Your task to perform on an android device: Is it going to rain today? Image 0: 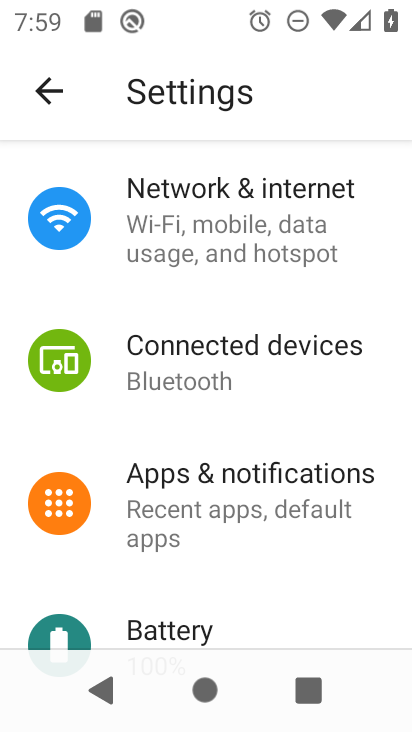
Step 0: press home button
Your task to perform on an android device: Is it going to rain today? Image 1: 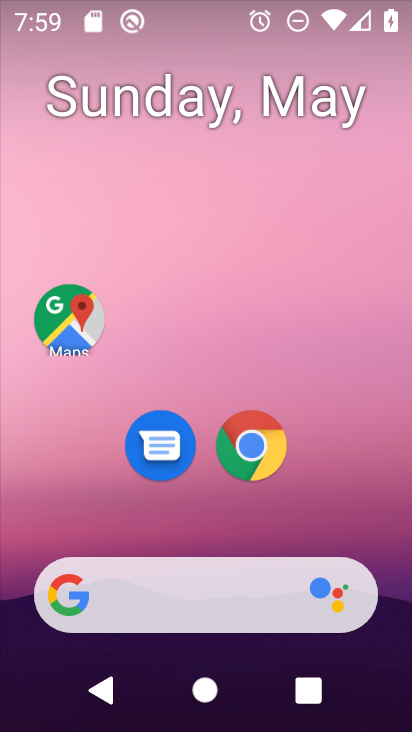
Step 1: drag from (244, 436) to (294, 138)
Your task to perform on an android device: Is it going to rain today? Image 2: 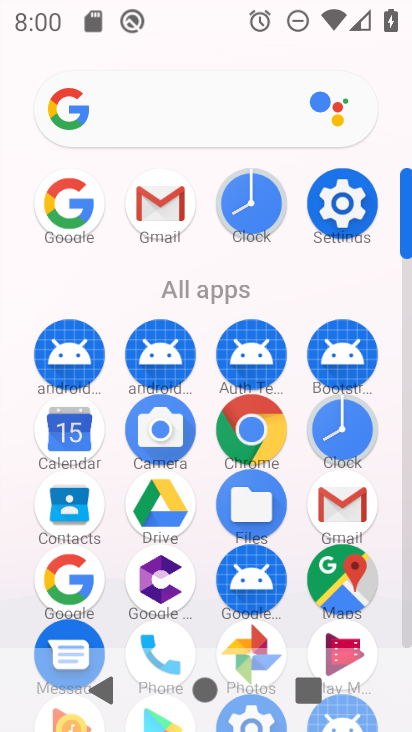
Step 2: click (80, 598)
Your task to perform on an android device: Is it going to rain today? Image 3: 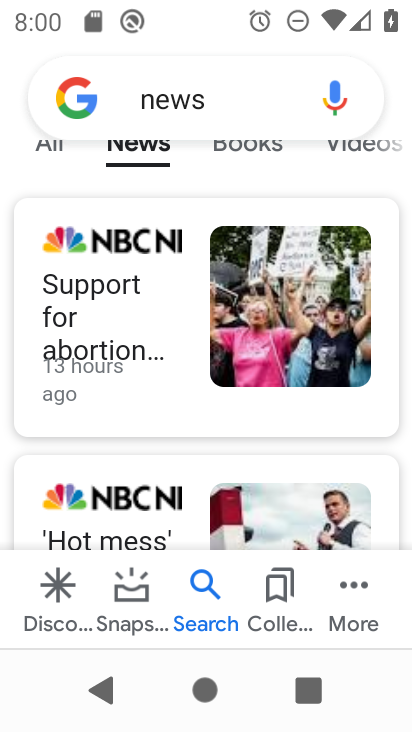
Step 3: click (265, 107)
Your task to perform on an android device: Is it going to rain today? Image 4: 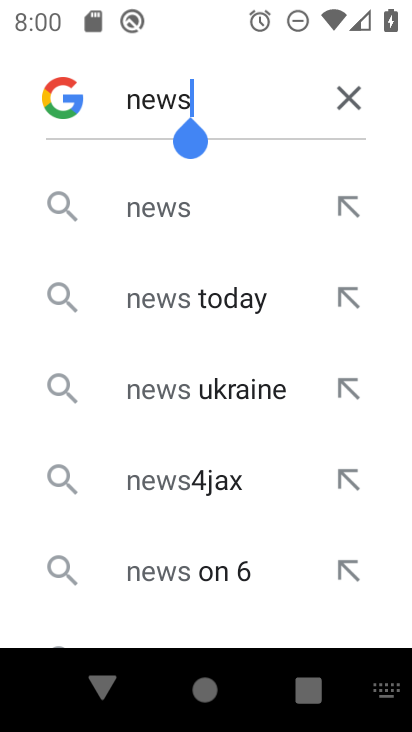
Step 4: click (351, 107)
Your task to perform on an android device: Is it going to rain today? Image 5: 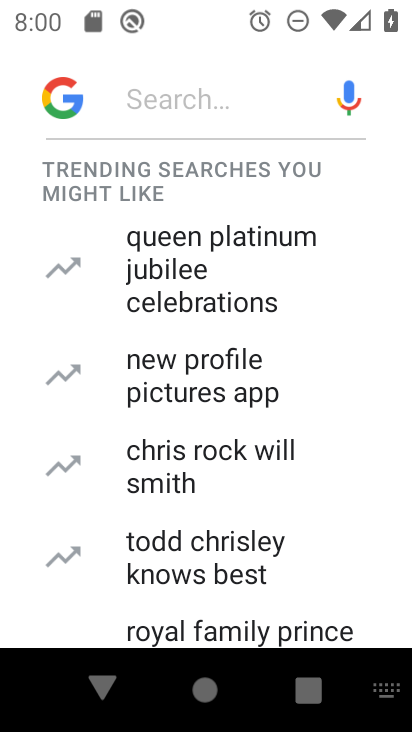
Step 5: type "weather"
Your task to perform on an android device: Is it going to rain today? Image 6: 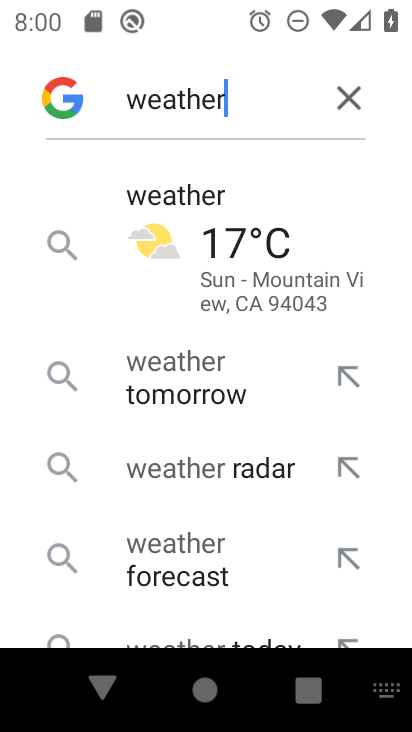
Step 6: click (277, 238)
Your task to perform on an android device: Is it going to rain today? Image 7: 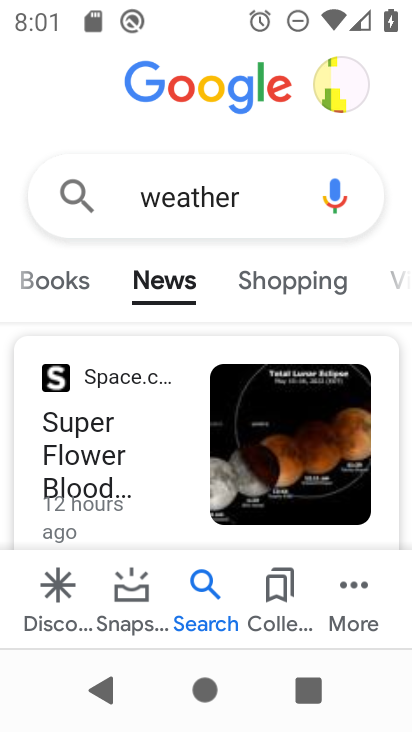
Step 7: task complete